Your task to perform on an android device: Go to sound settings Image 0: 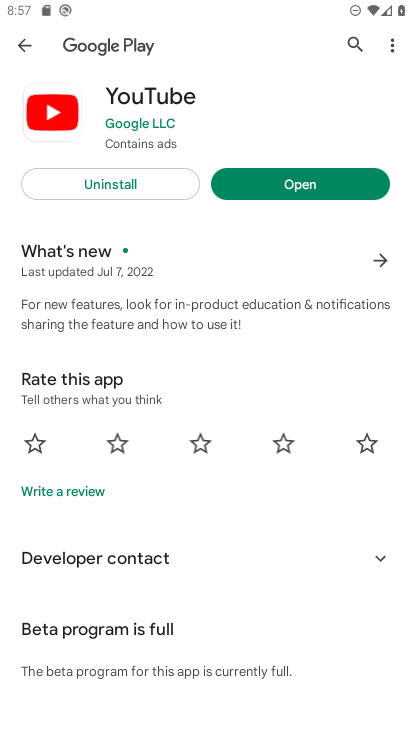
Step 0: press home button
Your task to perform on an android device: Go to sound settings Image 1: 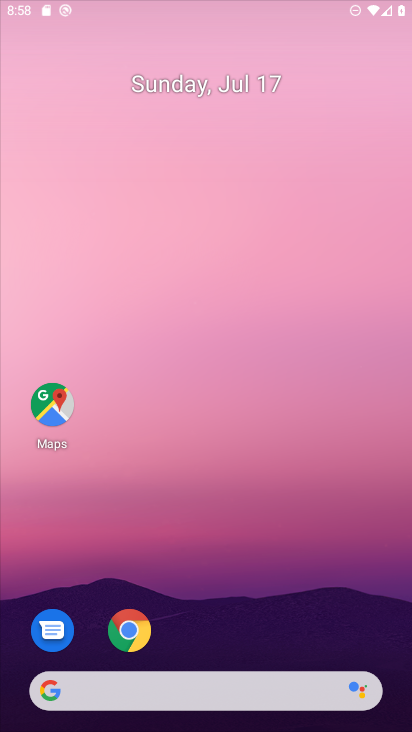
Step 1: drag from (332, 642) to (237, 19)
Your task to perform on an android device: Go to sound settings Image 2: 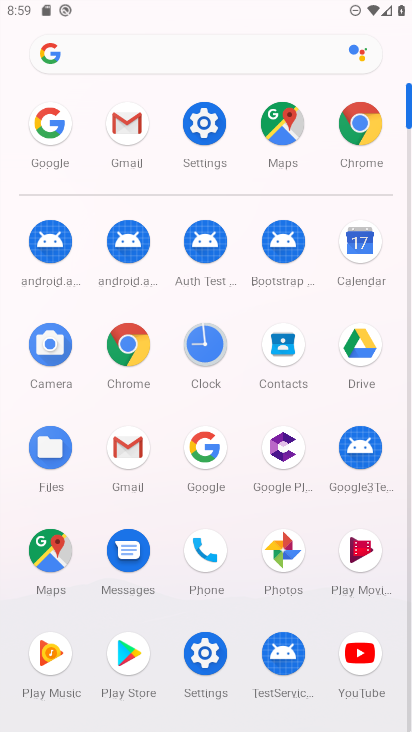
Step 2: click (202, 660)
Your task to perform on an android device: Go to sound settings Image 3: 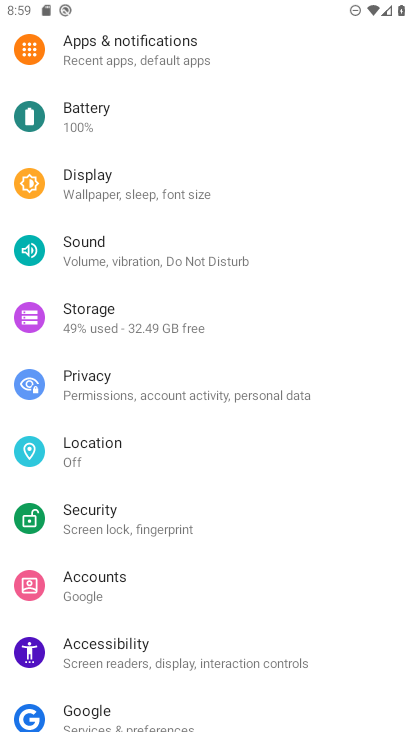
Step 3: click (112, 253)
Your task to perform on an android device: Go to sound settings Image 4: 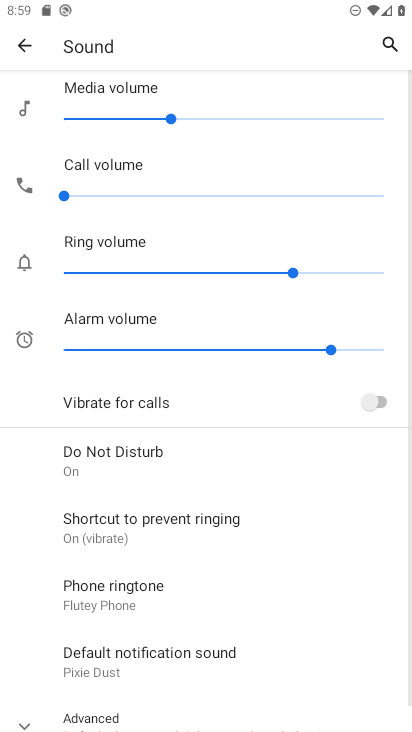
Step 4: task complete